Your task to perform on an android device: Open display settings Image 0: 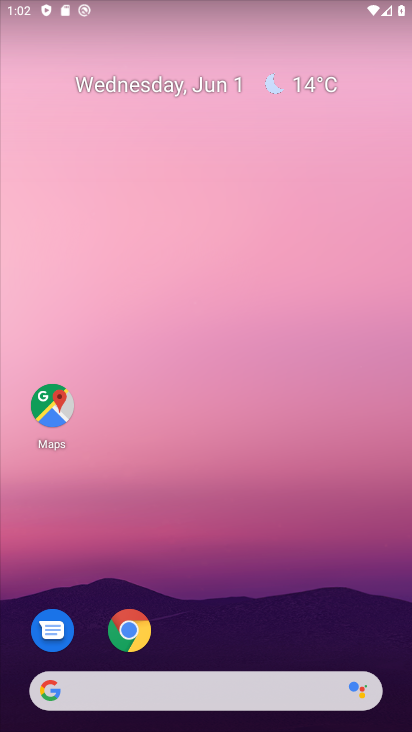
Step 0: press home button
Your task to perform on an android device: Open display settings Image 1: 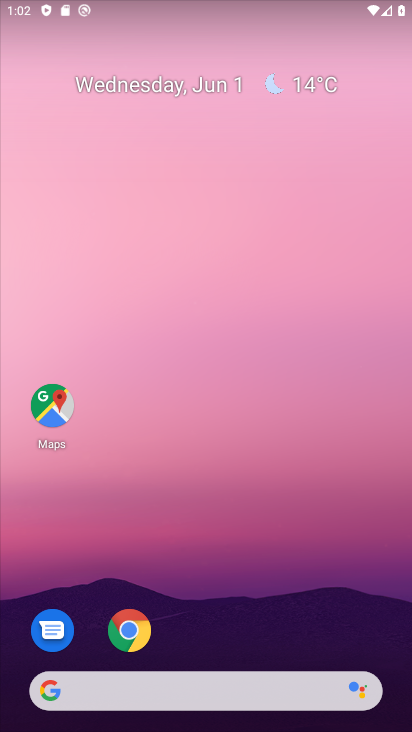
Step 1: drag from (232, 430) to (250, 53)
Your task to perform on an android device: Open display settings Image 2: 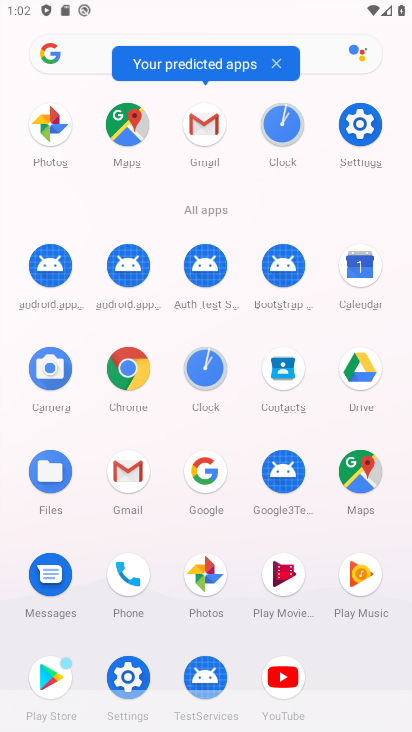
Step 2: click (361, 119)
Your task to perform on an android device: Open display settings Image 3: 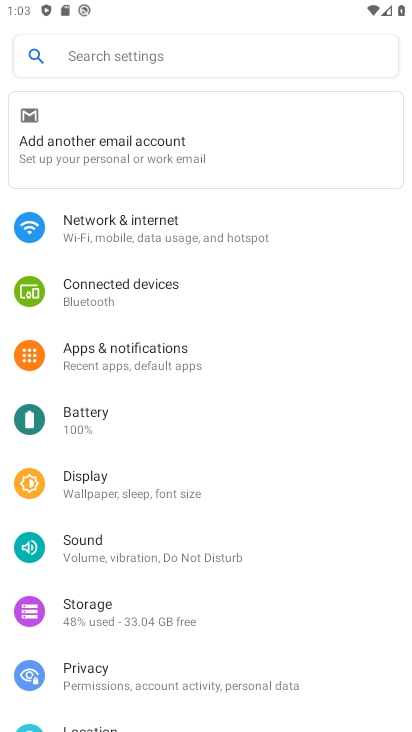
Step 3: click (123, 471)
Your task to perform on an android device: Open display settings Image 4: 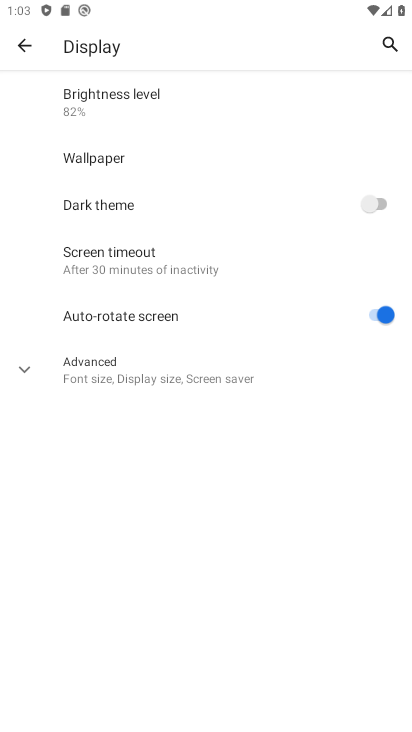
Step 4: click (28, 367)
Your task to perform on an android device: Open display settings Image 5: 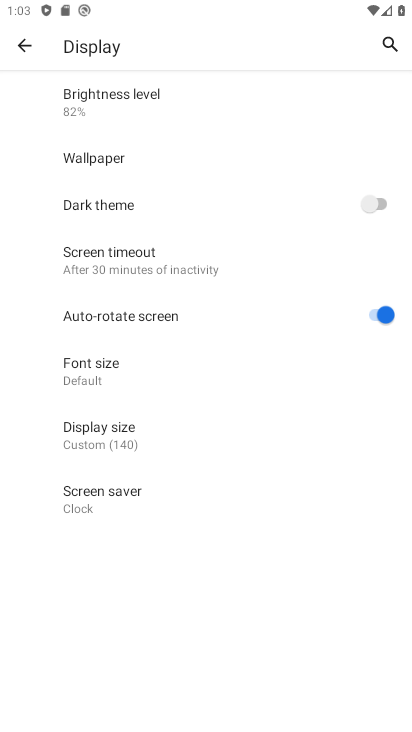
Step 5: task complete